Your task to perform on an android device: Go to Amazon Image 0: 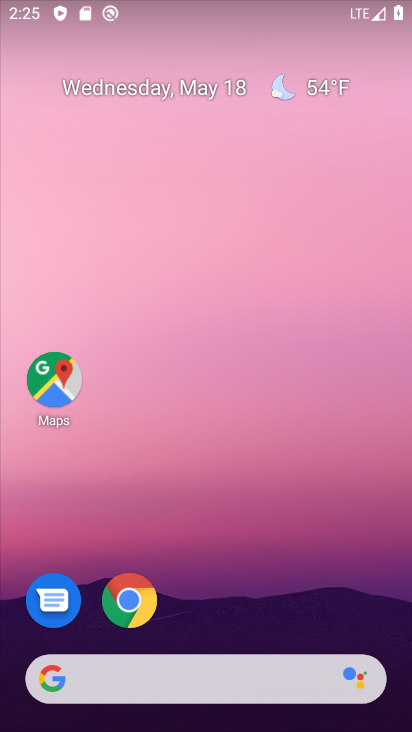
Step 0: press home button
Your task to perform on an android device: Go to Amazon Image 1: 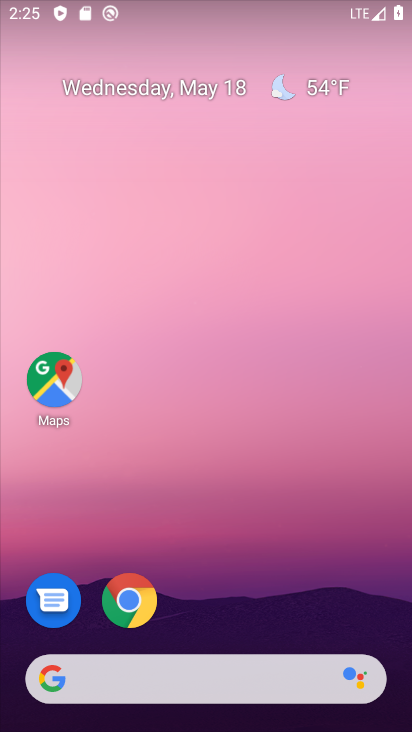
Step 1: click (142, 601)
Your task to perform on an android device: Go to Amazon Image 2: 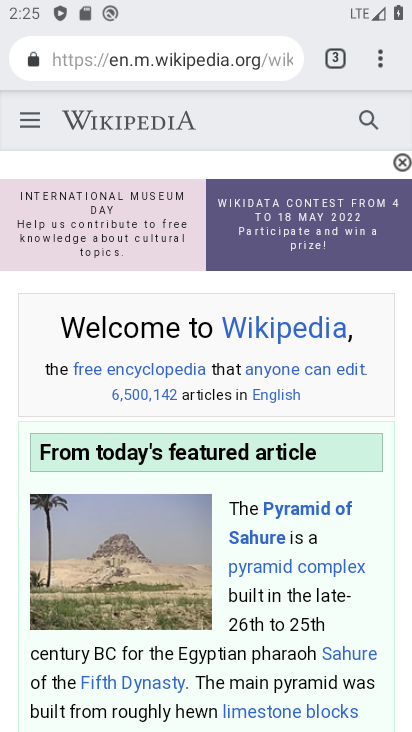
Step 2: drag from (376, 62) to (251, 116)
Your task to perform on an android device: Go to Amazon Image 3: 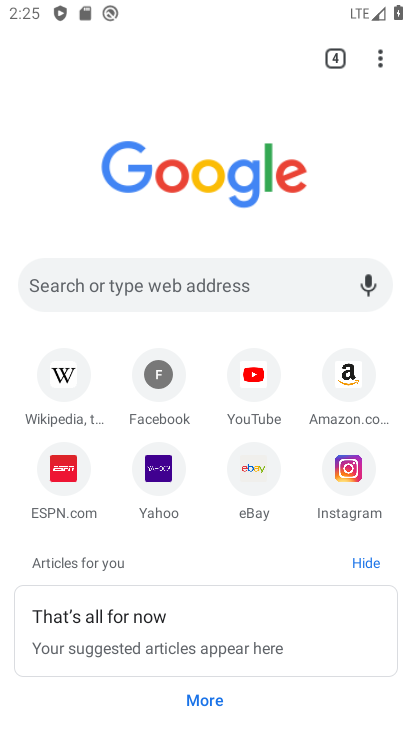
Step 3: click (349, 370)
Your task to perform on an android device: Go to Amazon Image 4: 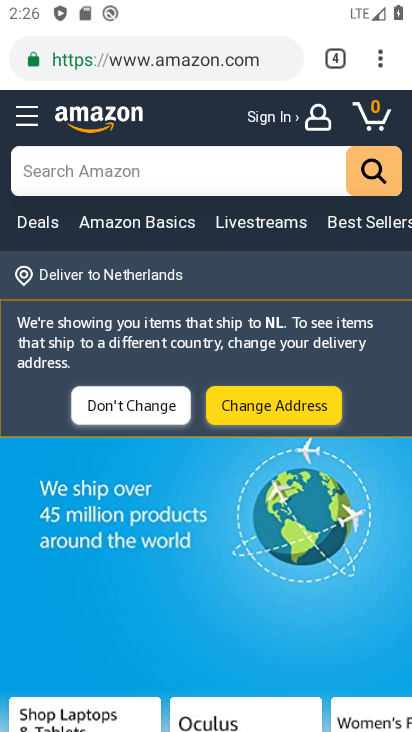
Step 4: task complete